Your task to perform on an android device: Go to sound settings Image 0: 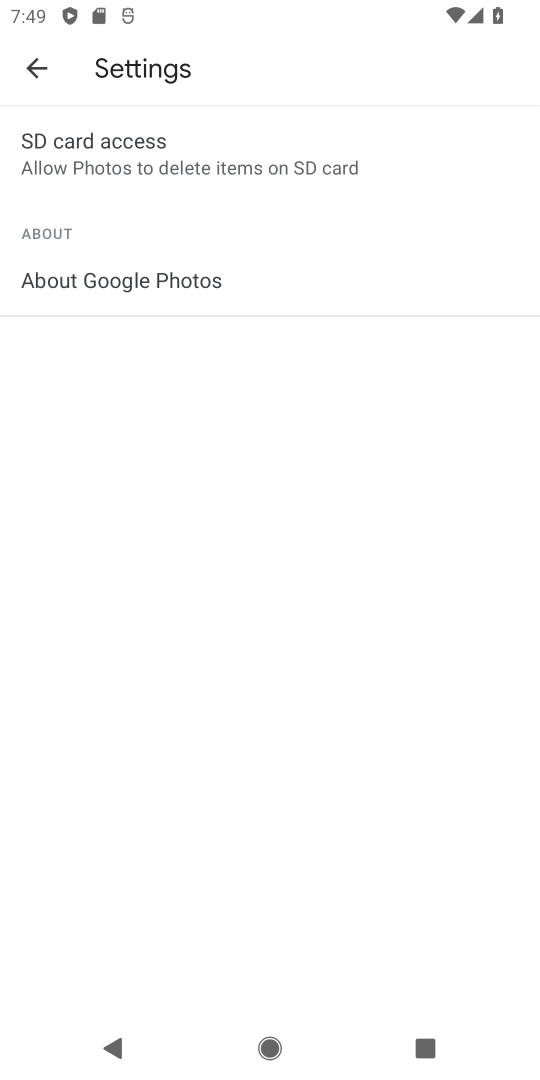
Step 0: press back button
Your task to perform on an android device: Go to sound settings Image 1: 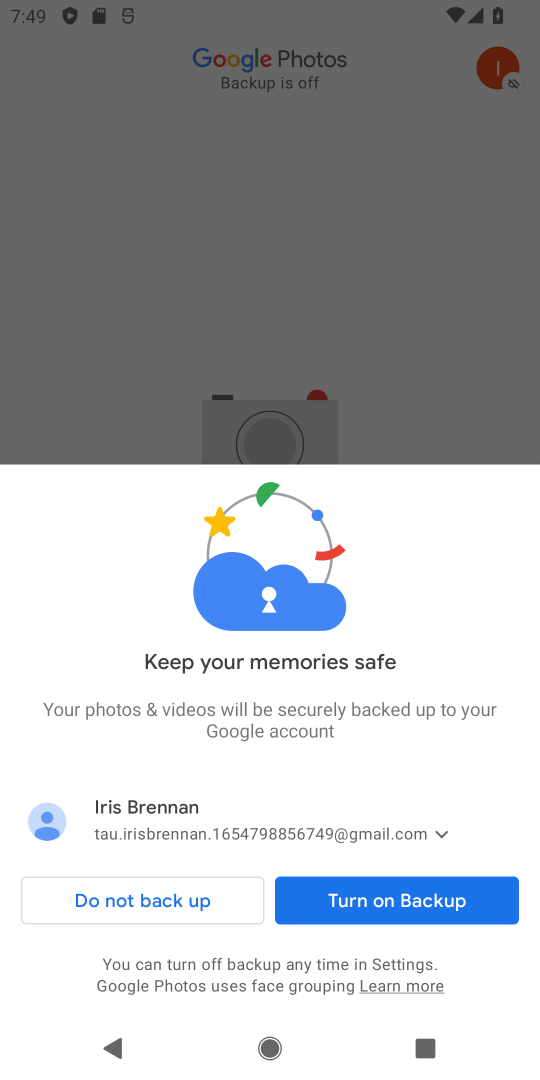
Step 1: press back button
Your task to perform on an android device: Go to sound settings Image 2: 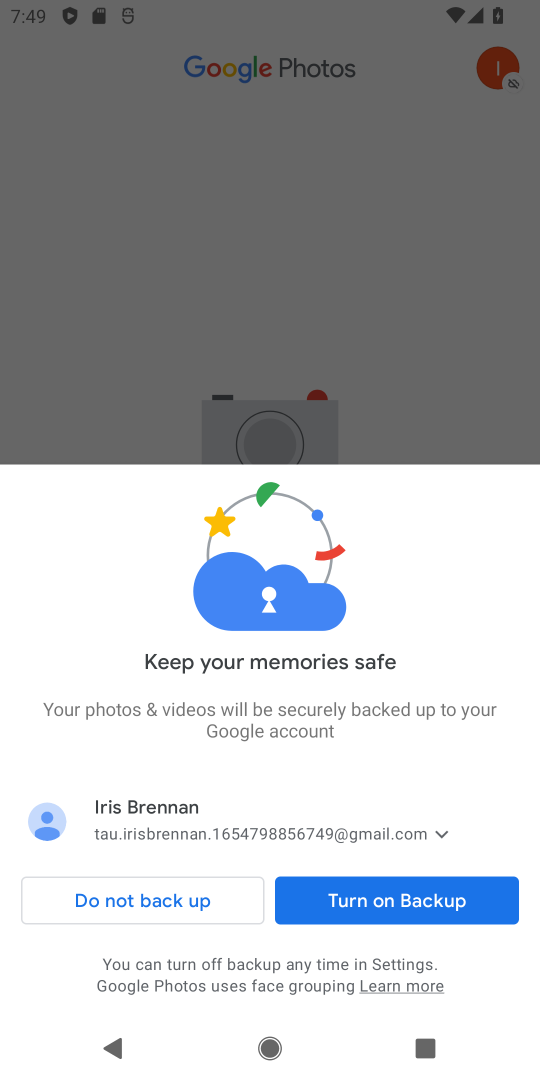
Step 2: press home button
Your task to perform on an android device: Go to sound settings Image 3: 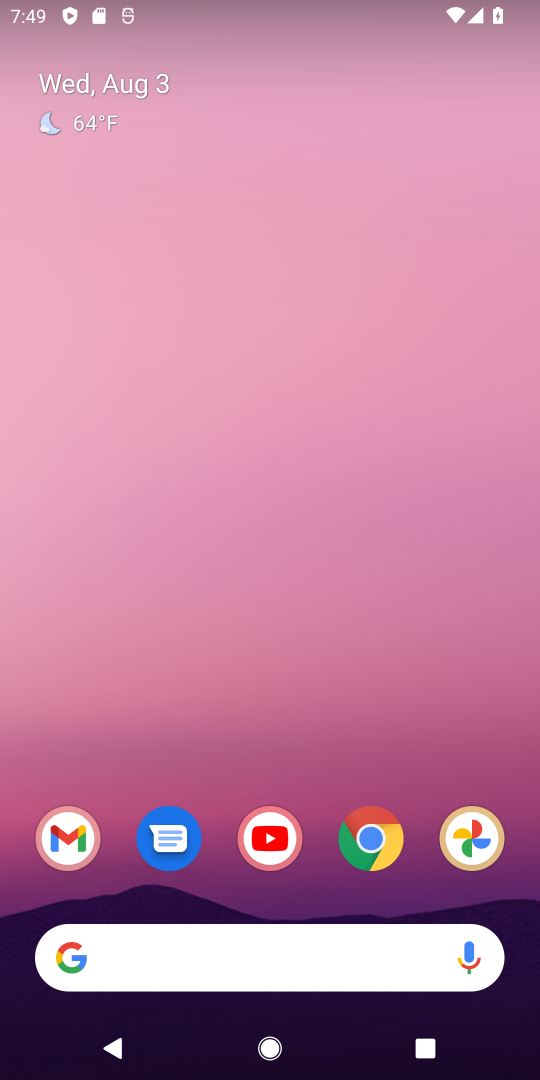
Step 3: drag from (226, 830) to (351, 111)
Your task to perform on an android device: Go to sound settings Image 4: 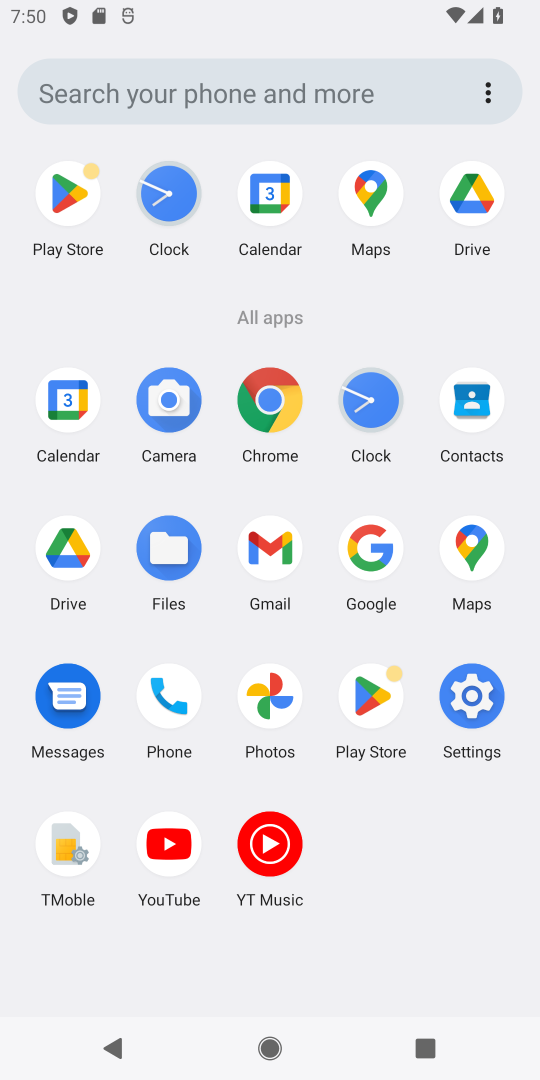
Step 4: click (464, 692)
Your task to perform on an android device: Go to sound settings Image 5: 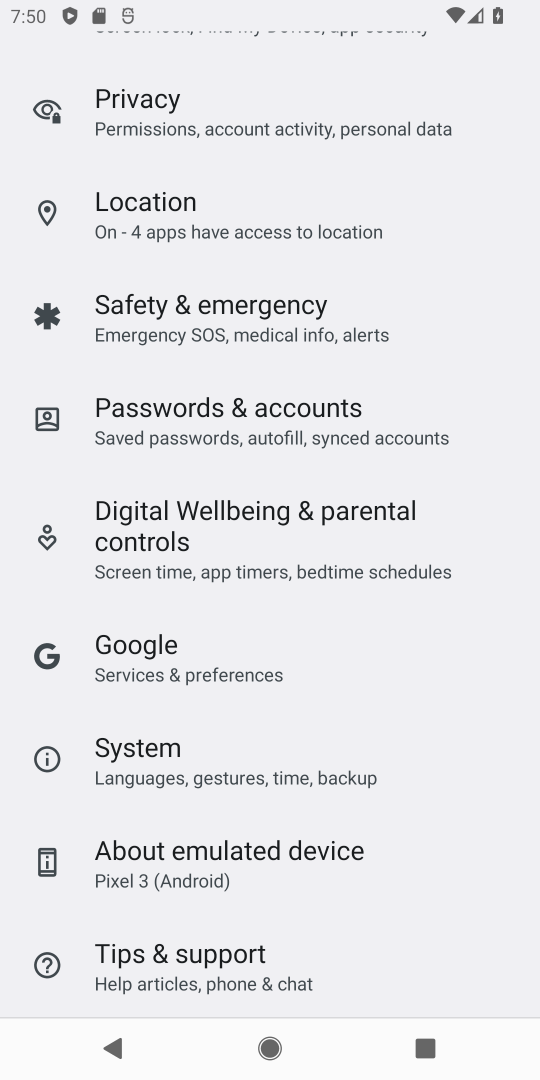
Step 5: drag from (253, 390) to (256, 595)
Your task to perform on an android device: Go to sound settings Image 6: 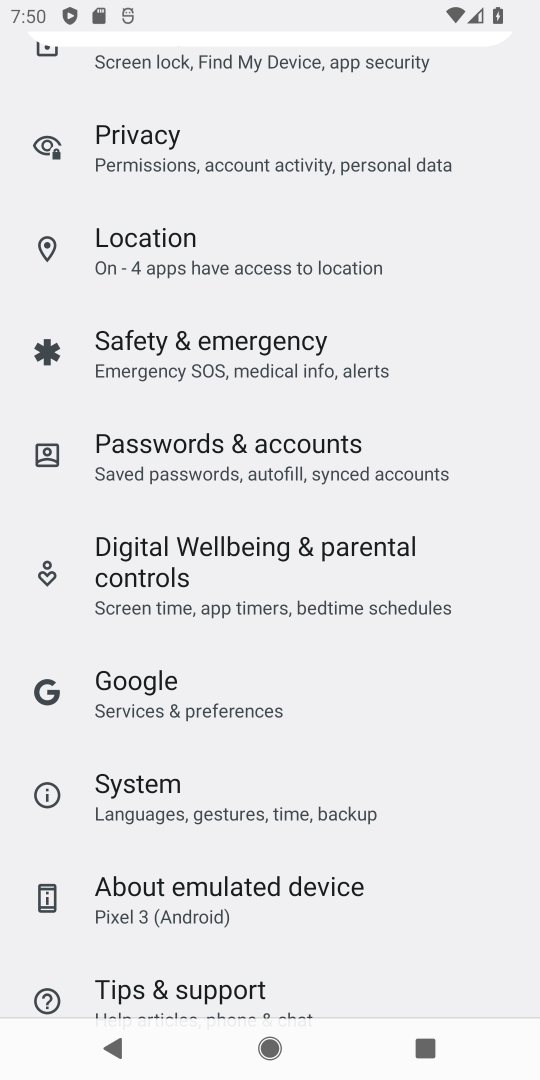
Step 6: drag from (243, 258) to (243, 529)
Your task to perform on an android device: Go to sound settings Image 7: 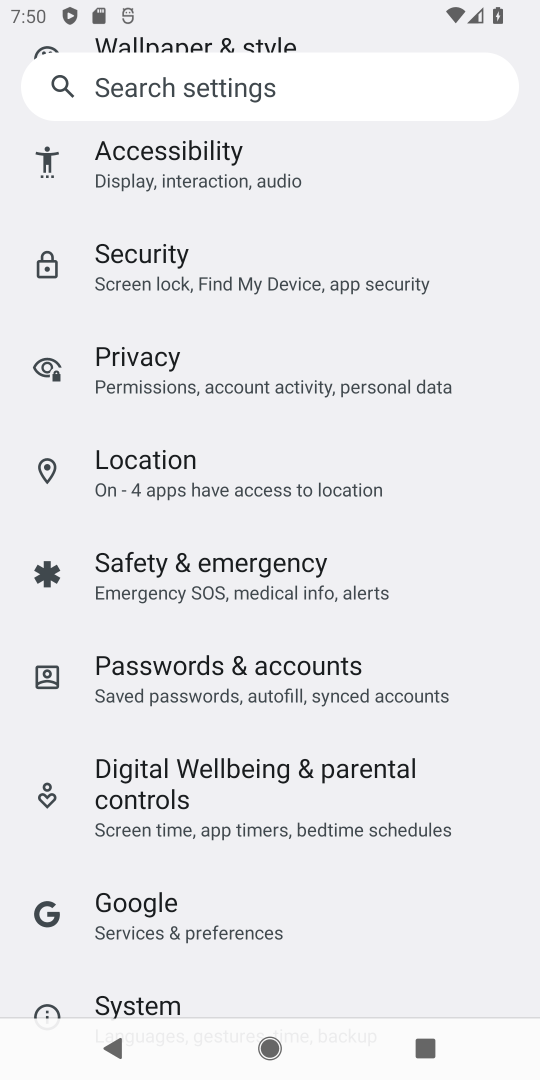
Step 7: drag from (202, 211) to (248, 560)
Your task to perform on an android device: Go to sound settings Image 8: 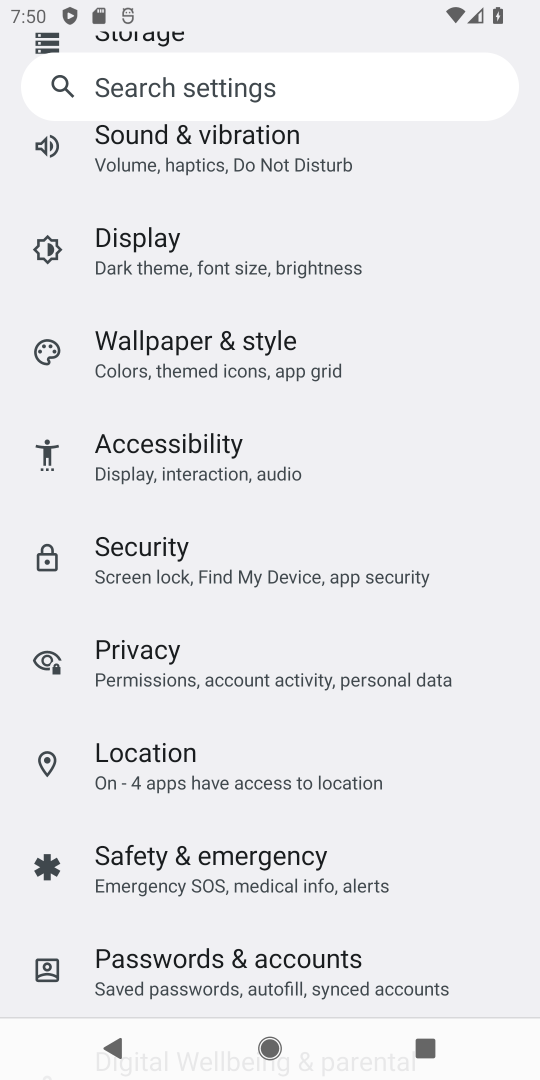
Step 8: click (218, 168)
Your task to perform on an android device: Go to sound settings Image 9: 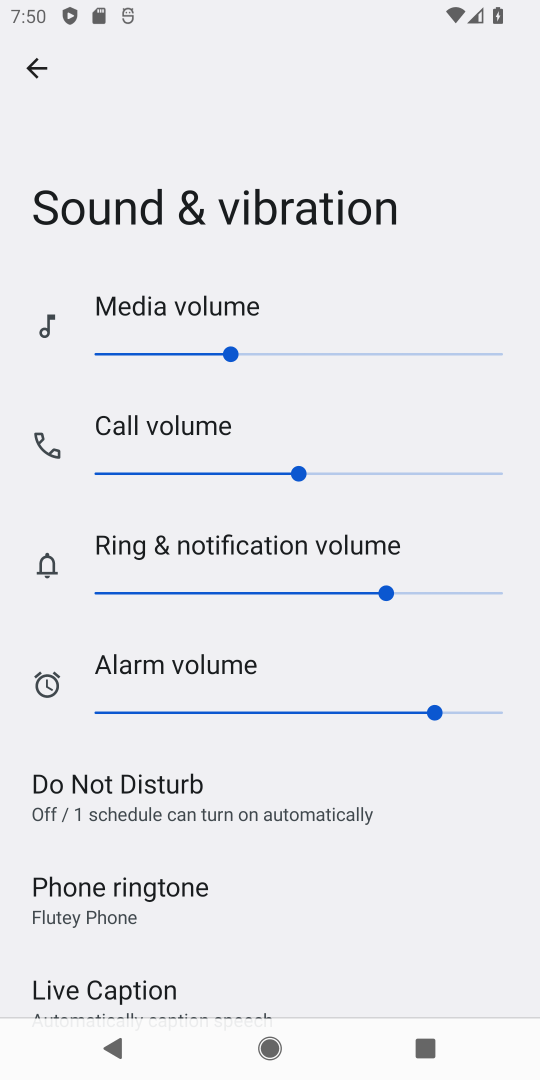
Step 9: task complete